Your task to perform on an android device: Open the calendar app, open the side menu, and click the "Day" option Image 0: 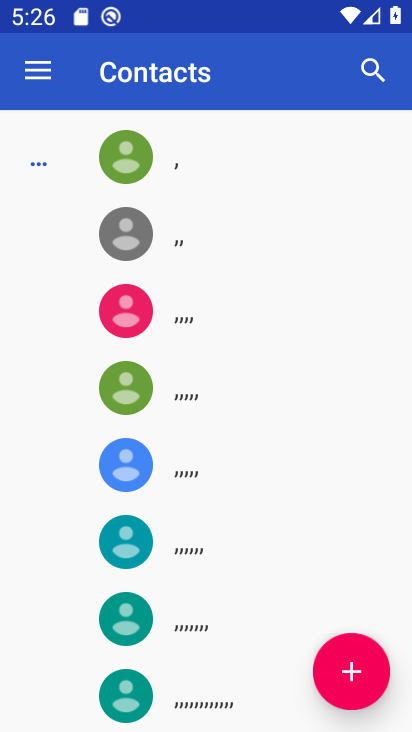
Step 0: press back button
Your task to perform on an android device: Open the calendar app, open the side menu, and click the "Day" option Image 1: 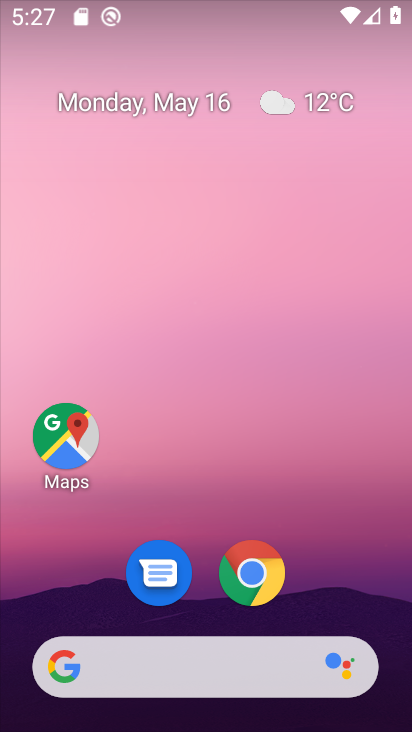
Step 1: drag from (151, 587) to (235, 104)
Your task to perform on an android device: Open the calendar app, open the side menu, and click the "Day" option Image 2: 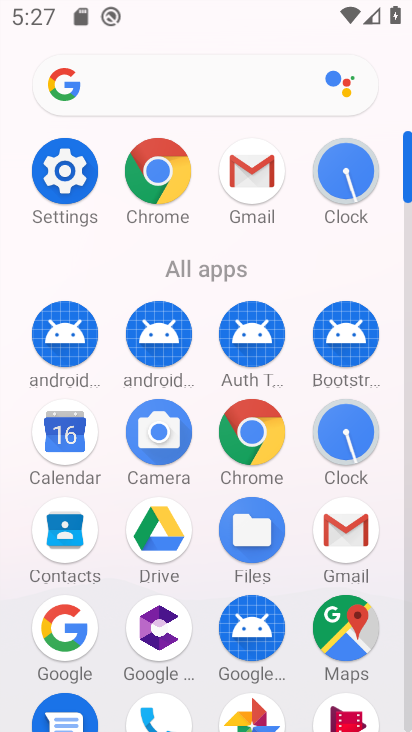
Step 2: click (70, 438)
Your task to perform on an android device: Open the calendar app, open the side menu, and click the "Day" option Image 3: 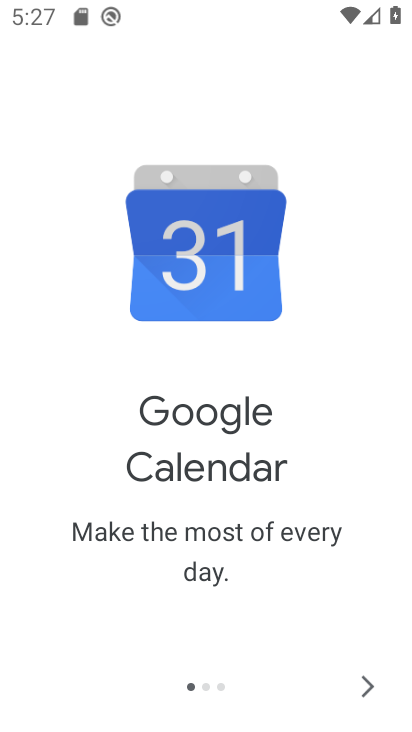
Step 3: click (336, 660)
Your task to perform on an android device: Open the calendar app, open the side menu, and click the "Day" option Image 4: 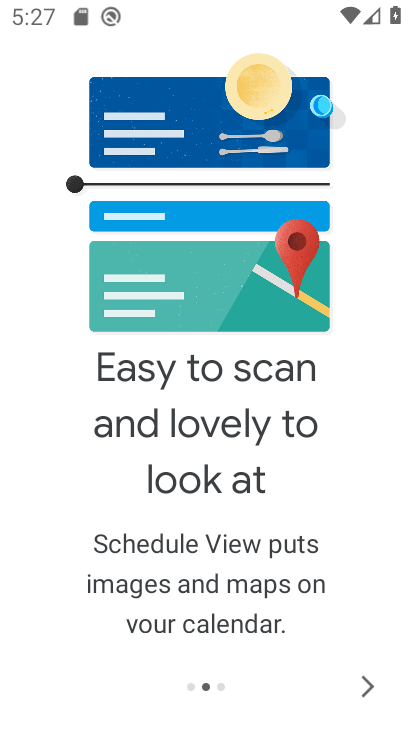
Step 4: click (368, 663)
Your task to perform on an android device: Open the calendar app, open the side menu, and click the "Day" option Image 5: 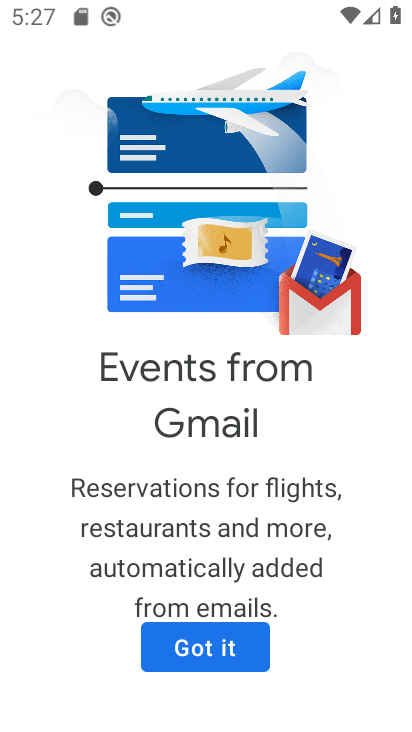
Step 5: click (169, 640)
Your task to perform on an android device: Open the calendar app, open the side menu, and click the "Day" option Image 6: 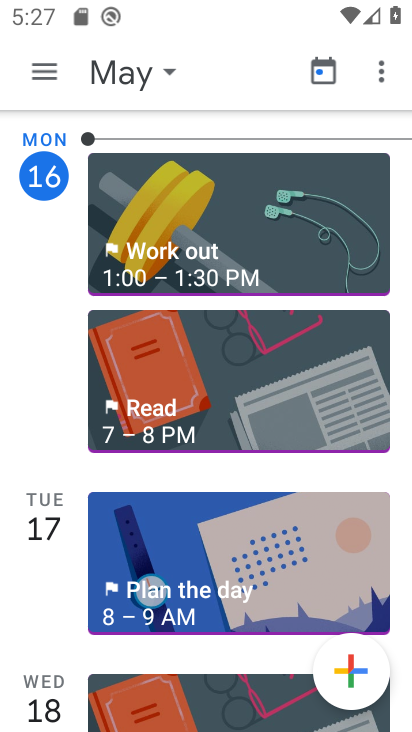
Step 6: click (49, 62)
Your task to perform on an android device: Open the calendar app, open the side menu, and click the "Day" option Image 7: 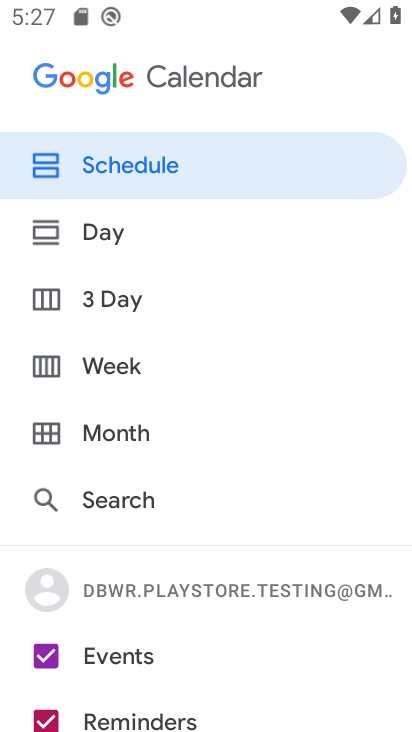
Step 7: click (115, 230)
Your task to perform on an android device: Open the calendar app, open the side menu, and click the "Day" option Image 8: 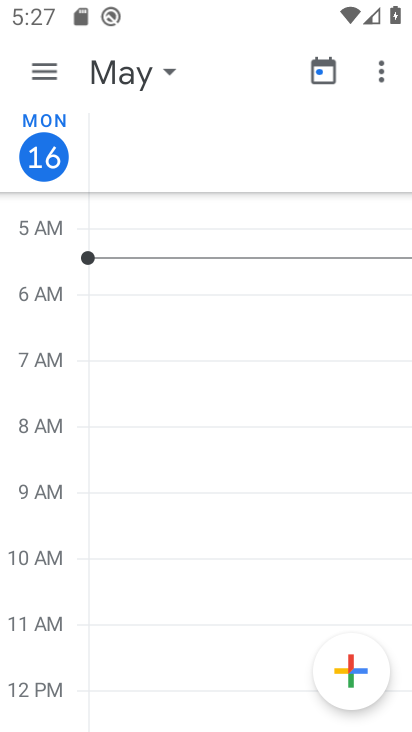
Step 8: task complete